Your task to perform on an android device: empty trash in the gmail app Image 0: 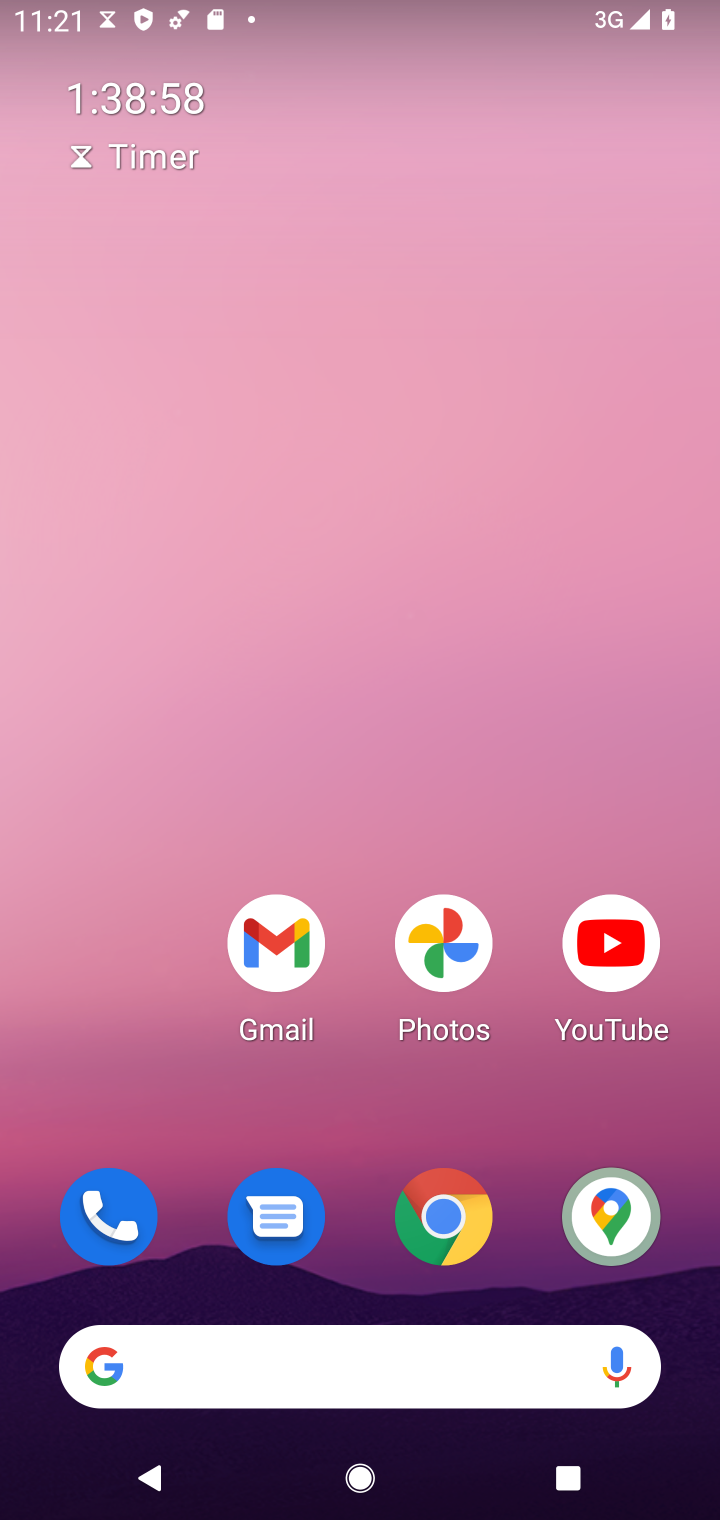
Step 0: click (270, 948)
Your task to perform on an android device: empty trash in the gmail app Image 1: 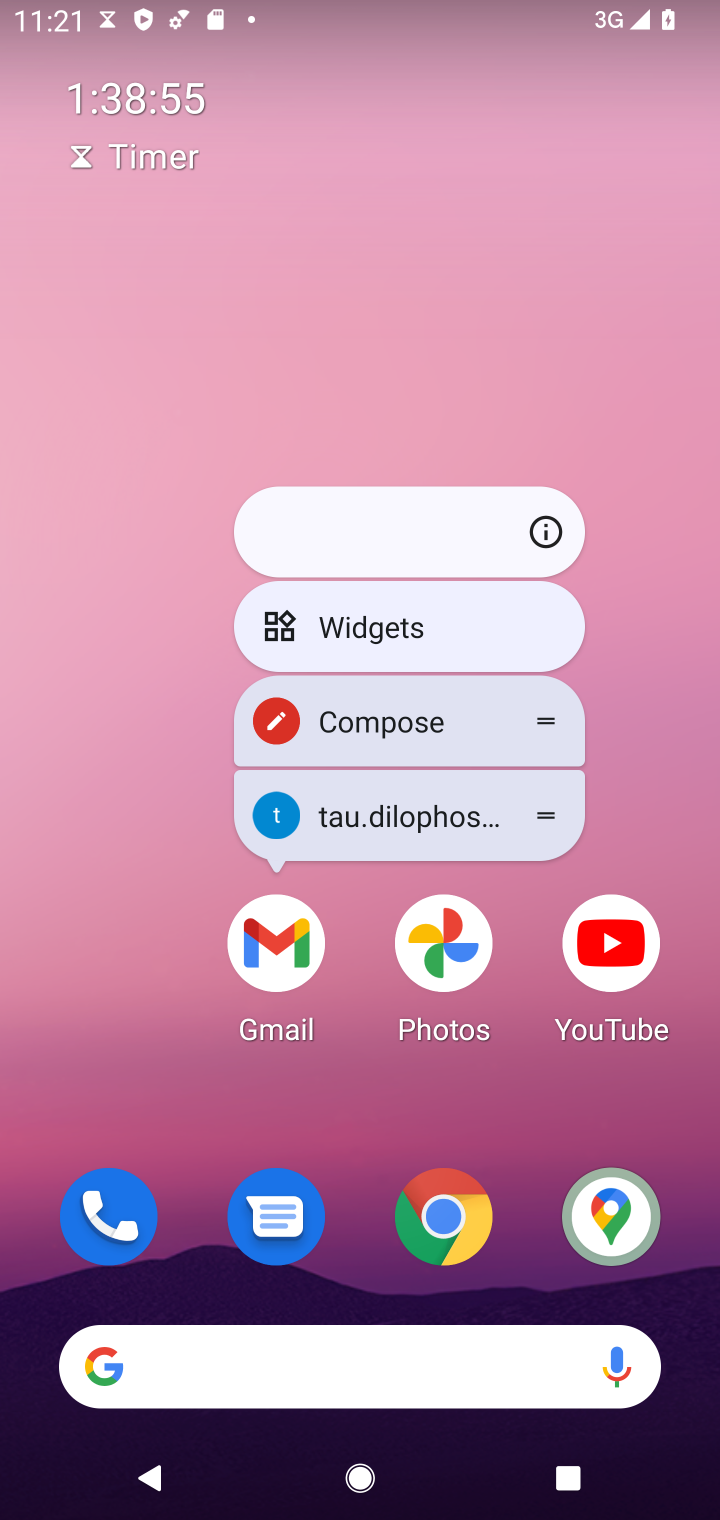
Step 1: click (281, 957)
Your task to perform on an android device: empty trash in the gmail app Image 2: 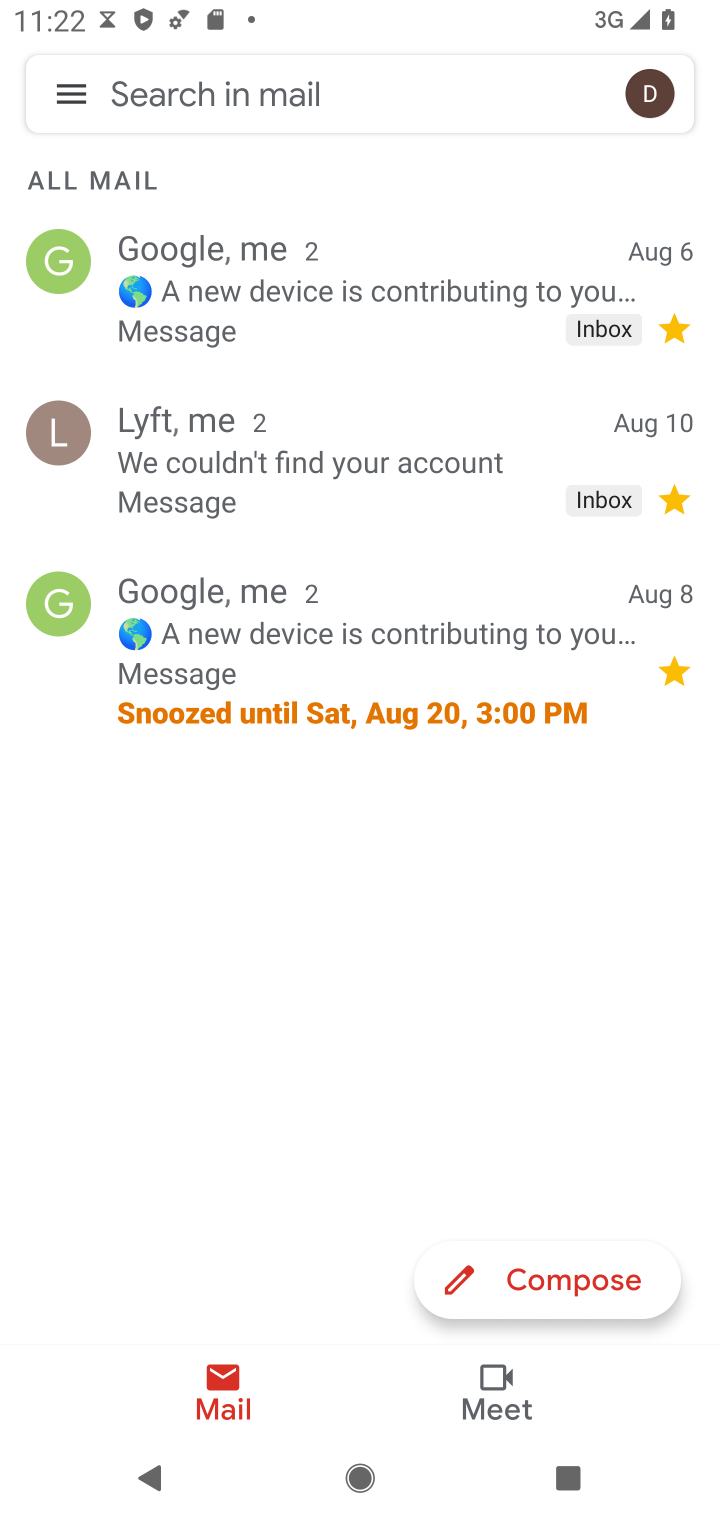
Step 2: click (61, 85)
Your task to perform on an android device: empty trash in the gmail app Image 3: 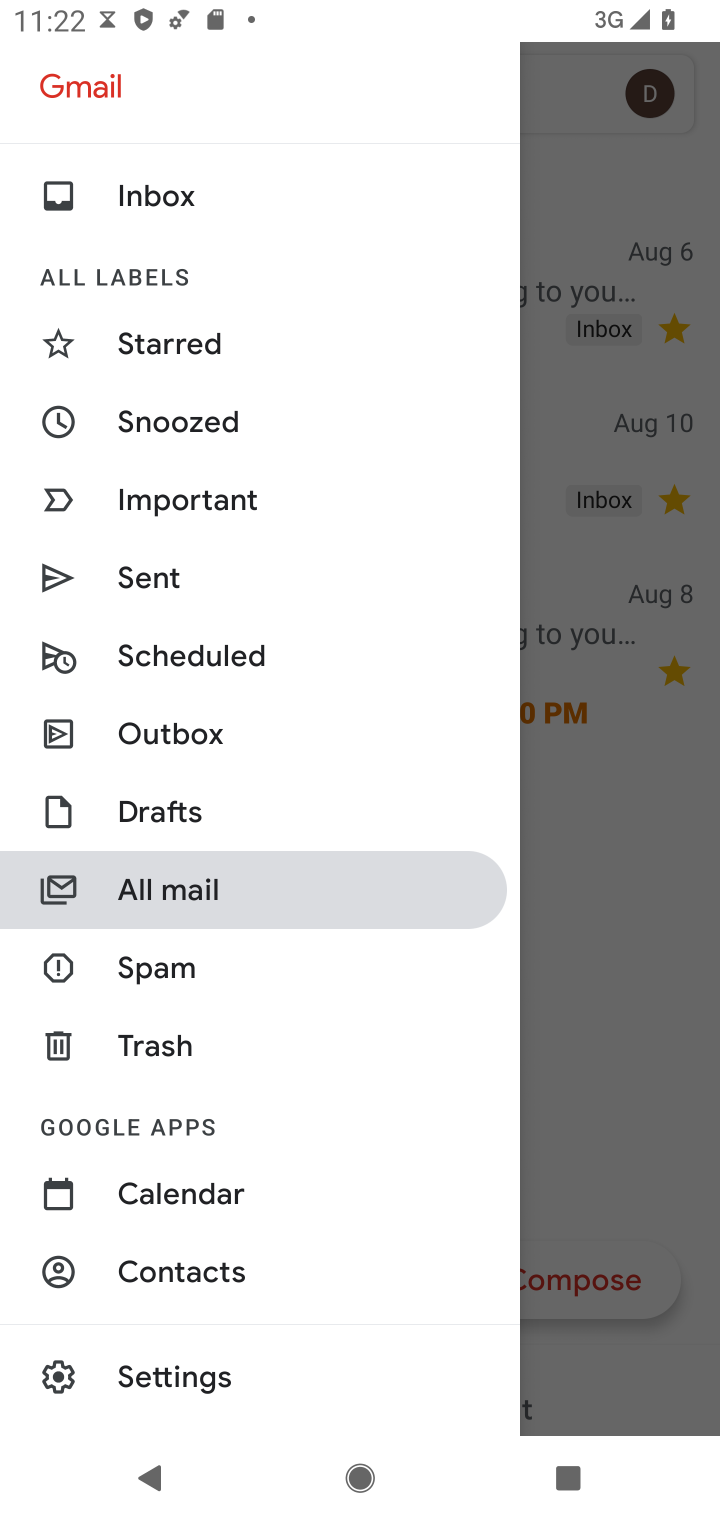
Step 3: click (121, 1036)
Your task to perform on an android device: empty trash in the gmail app Image 4: 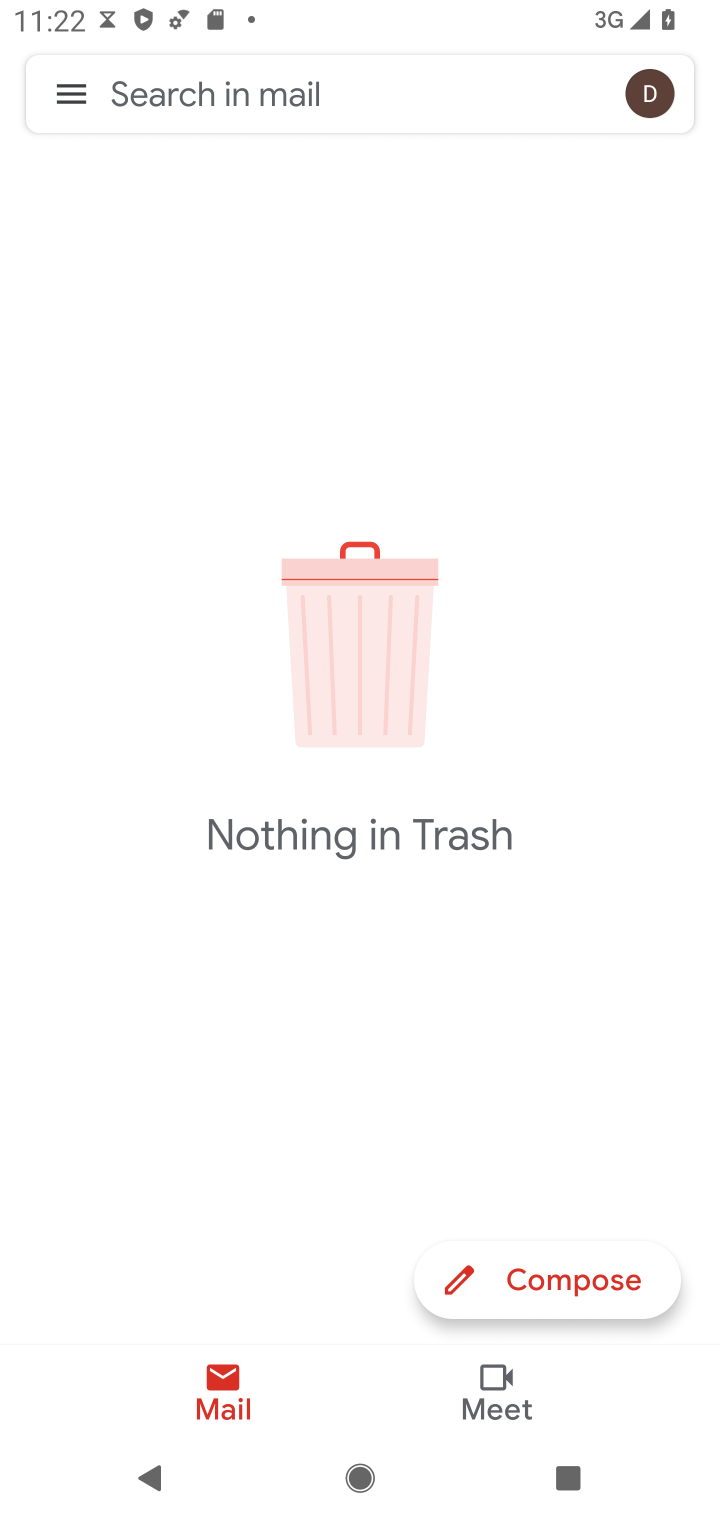
Step 4: task complete